Your task to perform on an android device: Do I have any events tomorrow? Image 0: 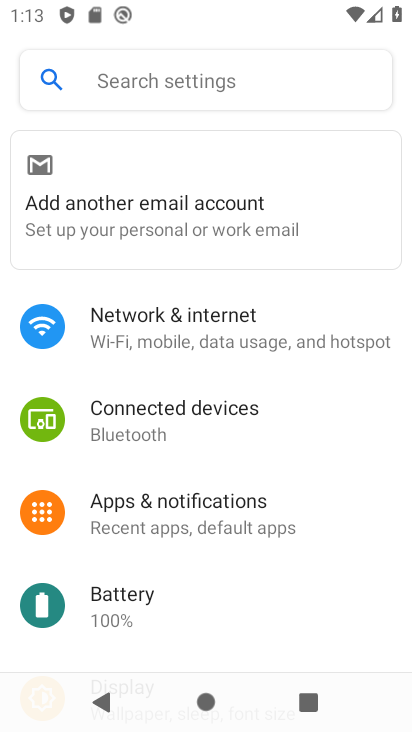
Step 0: press home button
Your task to perform on an android device: Do I have any events tomorrow? Image 1: 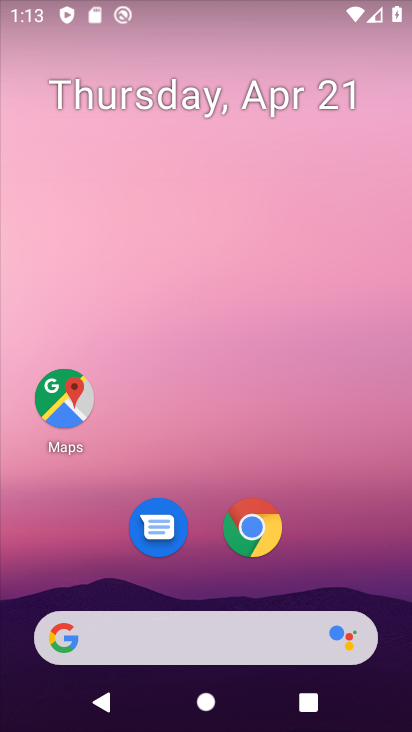
Step 1: drag from (355, 561) to (375, 180)
Your task to perform on an android device: Do I have any events tomorrow? Image 2: 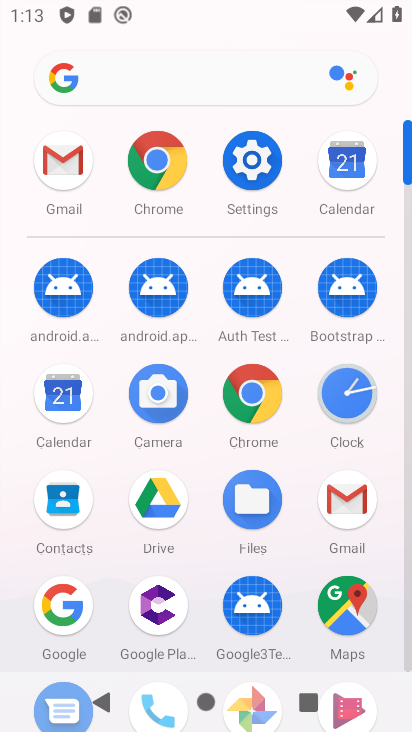
Step 2: click (59, 406)
Your task to perform on an android device: Do I have any events tomorrow? Image 3: 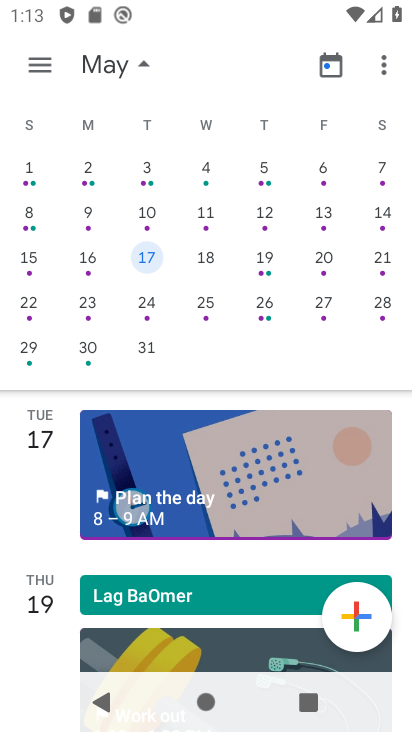
Step 3: drag from (43, 236) to (407, 307)
Your task to perform on an android device: Do I have any events tomorrow? Image 4: 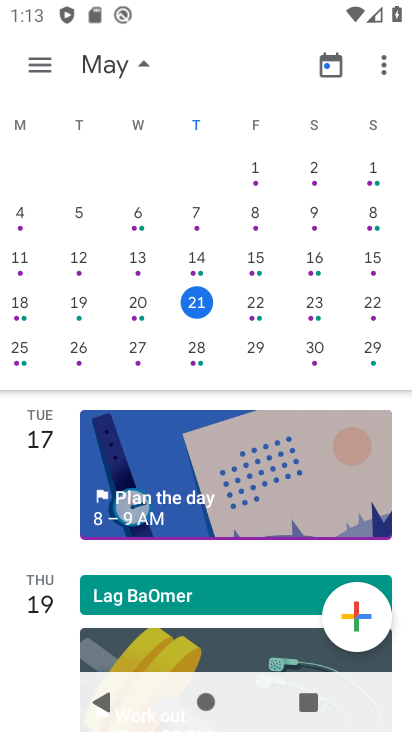
Step 4: click (248, 307)
Your task to perform on an android device: Do I have any events tomorrow? Image 5: 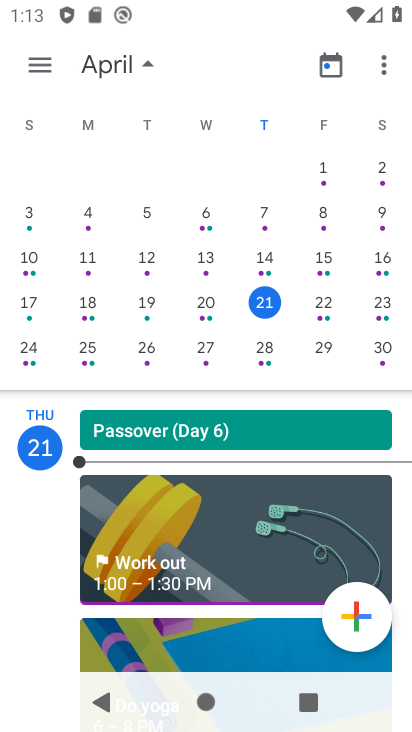
Step 5: click (328, 304)
Your task to perform on an android device: Do I have any events tomorrow? Image 6: 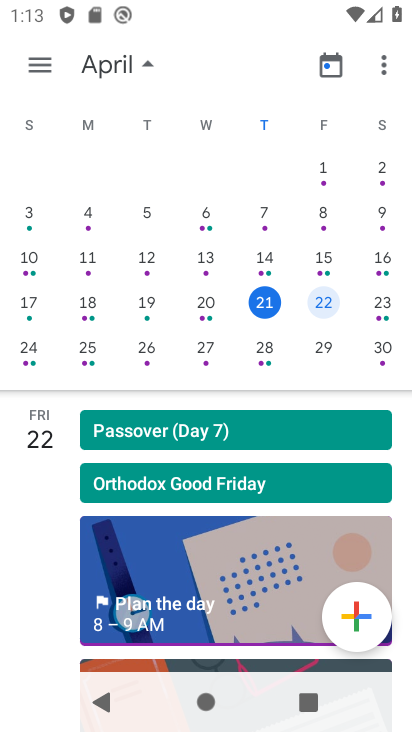
Step 6: drag from (277, 518) to (289, 185)
Your task to perform on an android device: Do I have any events tomorrow? Image 7: 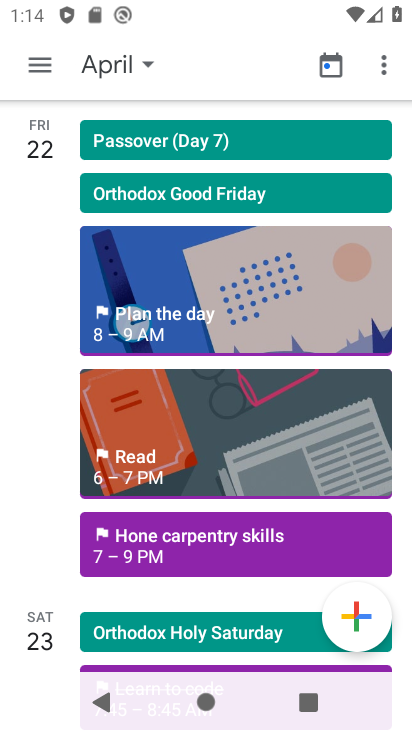
Step 7: click (241, 428)
Your task to perform on an android device: Do I have any events tomorrow? Image 8: 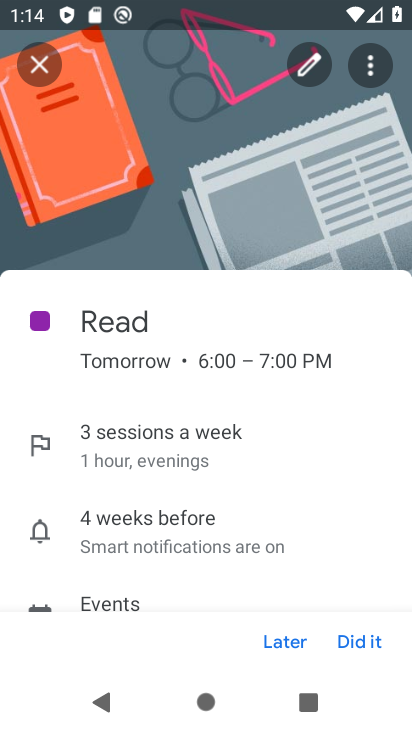
Step 8: task complete